Your task to perform on an android device: search for starred emails in the gmail app Image 0: 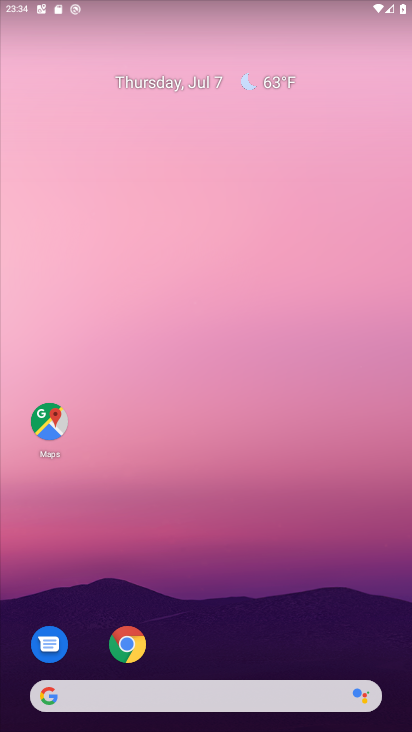
Step 0: drag from (189, 689) to (188, 50)
Your task to perform on an android device: search for starred emails in the gmail app Image 1: 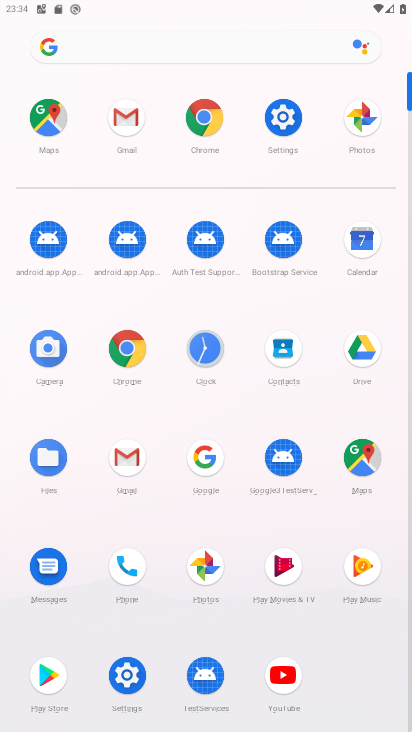
Step 1: click (132, 459)
Your task to perform on an android device: search for starred emails in the gmail app Image 2: 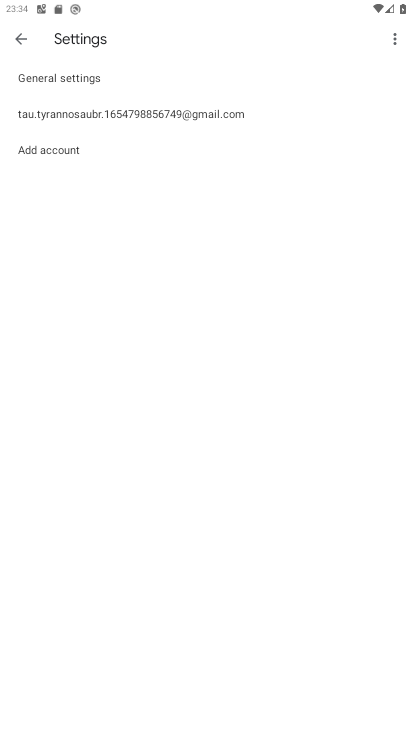
Step 2: click (24, 36)
Your task to perform on an android device: search for starred emails in the gmail app Image 3: 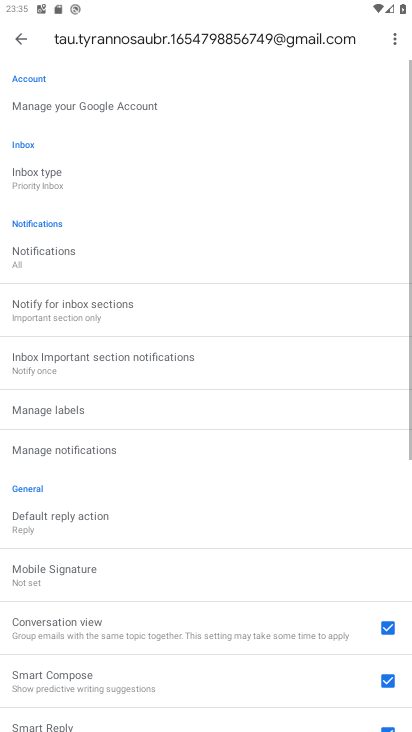
Step 3: click (24, 41)
Your task to perform on an android device: search for starred emails in the gmail app Image 4: 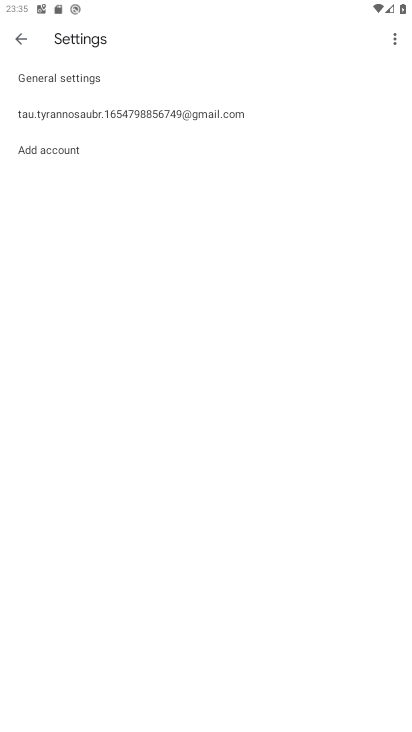
Step 4: click (24, 37)
Your task to perform on an android device: search for starred emails in the gmail app Image 5: 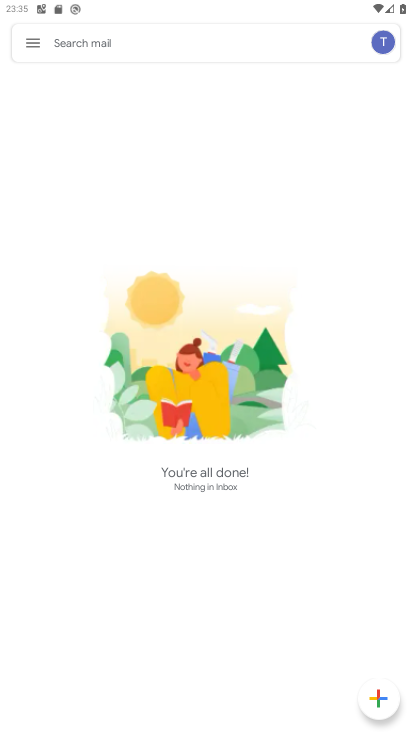
Step 5: click (37, 44)
Your task to perform on an android device: search for starred emails in the gmail app Image 6: 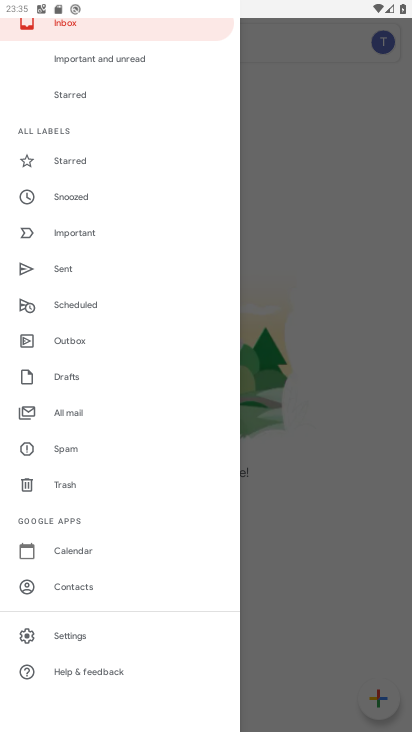
Step 6: click (79, 154)
Your task to perform on an android device: search for starred emails in the gmail app Image 7: 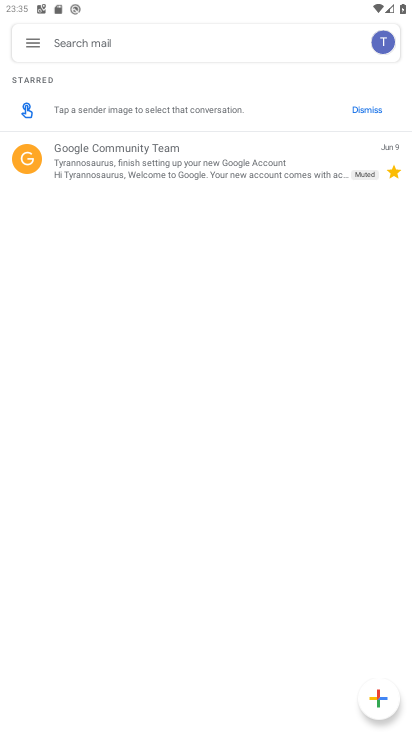
Step 7: task complete